Your task to perform on an android device: turn on the 24-hour format for clock Image 0: 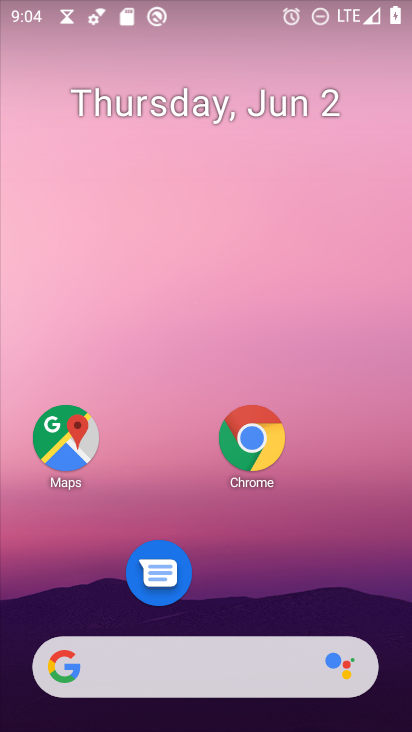
Step 0: press home button
Your task to perform on an android device: turn on the 24-hour format for clock Image 1: 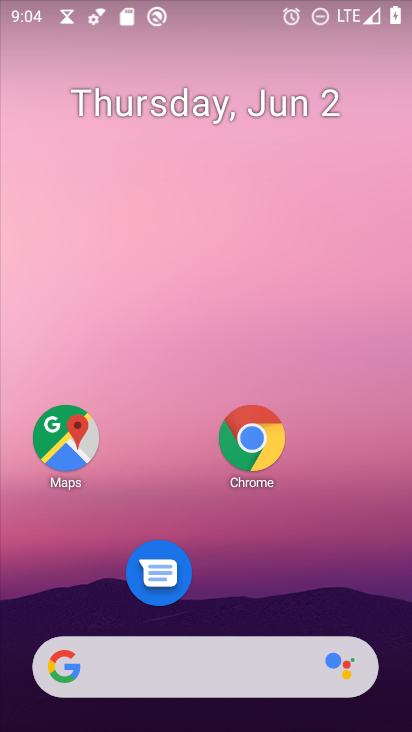
Step 1: click (268, 223)
Your task to perform on an android device: turn on the 24-hour format for clock Image 2: 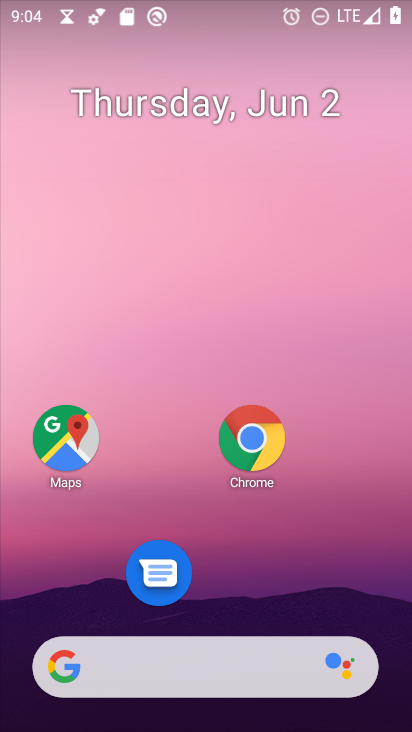
Step 2: drag from (170, 665) to (315, 173)
Your task to perform on an android device: turn on the 24-hour format for clock Image 3: 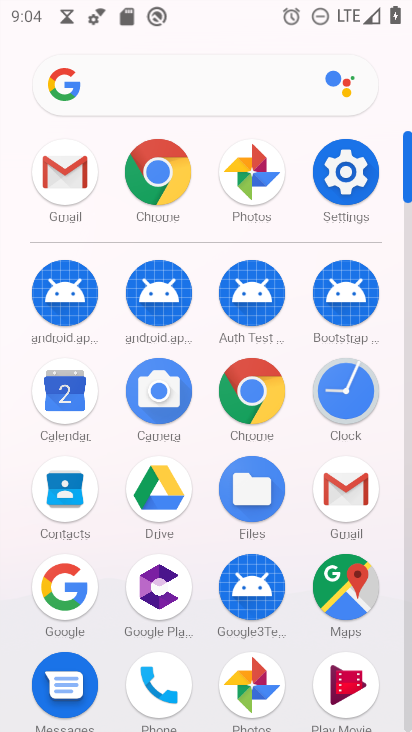
Step 3: click (356, 399)
Your task to perform on an android device: turn on the 24-hour format for clock Image 4: 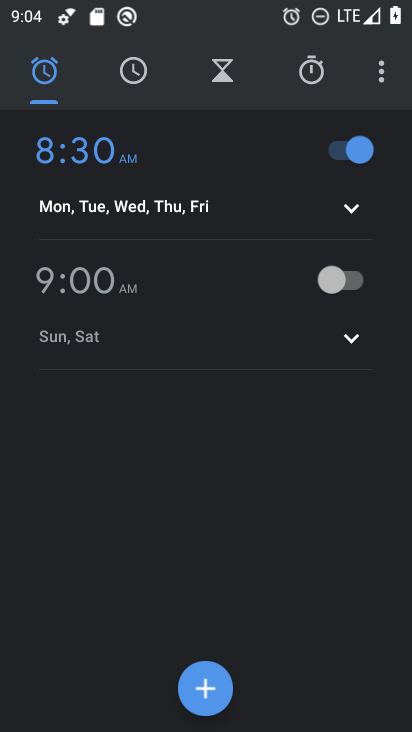
Step 4: click (379, 77)
Your task to perform on an android device: turn on the 24-hour format for clock Image 5: 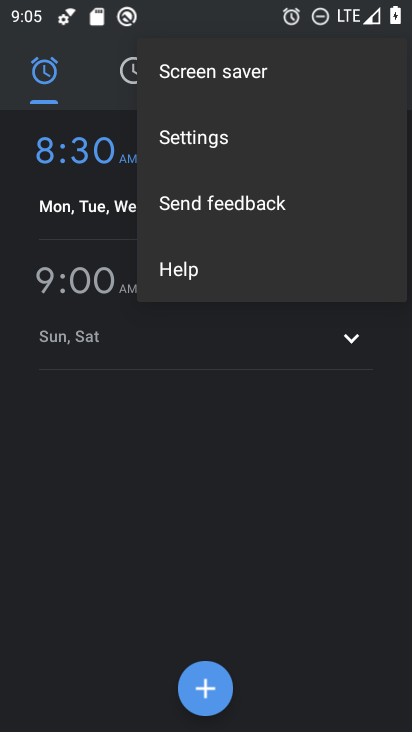
Step 5: click (205, 142)
Your task to perform on an android device: turn on the 24-hour format for clock Image 6: 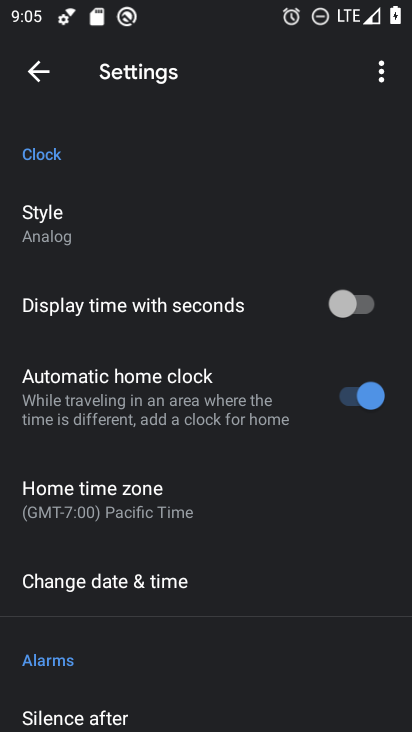
Step 6: drag from (191, 645) to (232, 492)
Your task to perform on an android device: turn on the 24-hour format for clock Image 7: 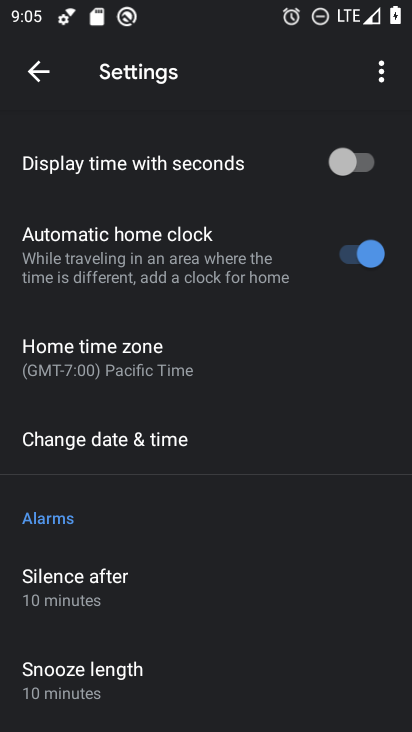
Step 7: click (159, 443)
Your task to perform on an android device: turn on the 24-hour format for clock Image 8: 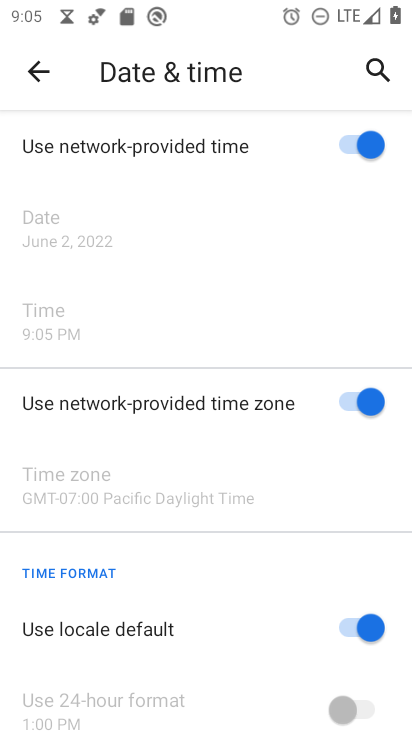
Step 8: drag from (197, 638) to (261, 291)
Your task to perform on an android device: turn on the 24-hour format for clock Image 9: 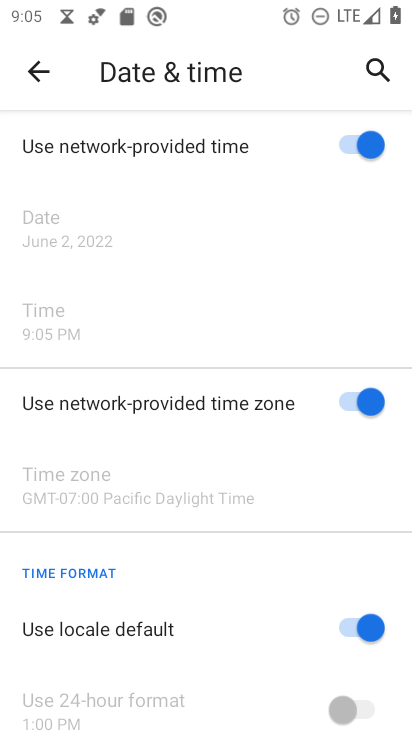
Step 9: click (346, 626)
Your task to perform on an android device: turn on the 24-hour format for clock Image 10: 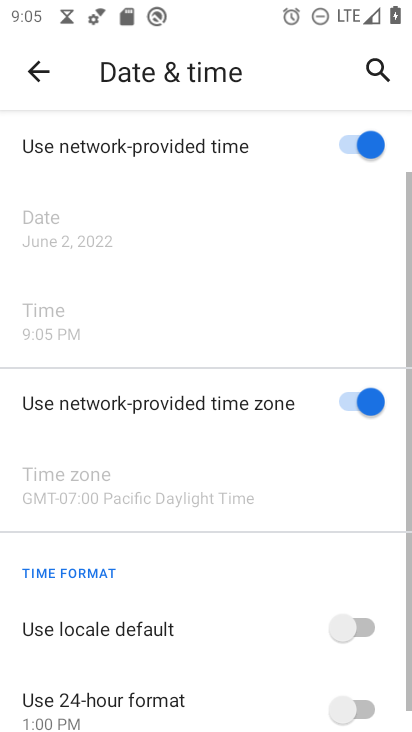
Step 10: click (369, 705)
Your task to perform on an android device: turn on the 24-hour format for clock Image 11: 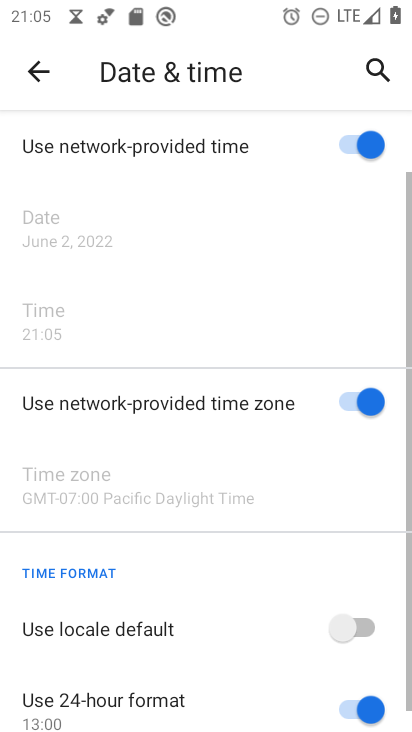
Step 11: task complete